Your task to perform on an android device: create a new album in the google photos Image 0: 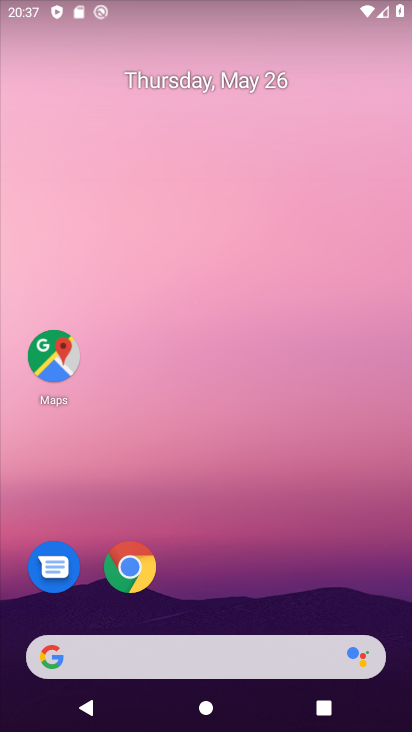
Step 0: drag from (232, 572) to (261, 39)
Your task to perform on an android device: create a new album in the google photos Image 1: 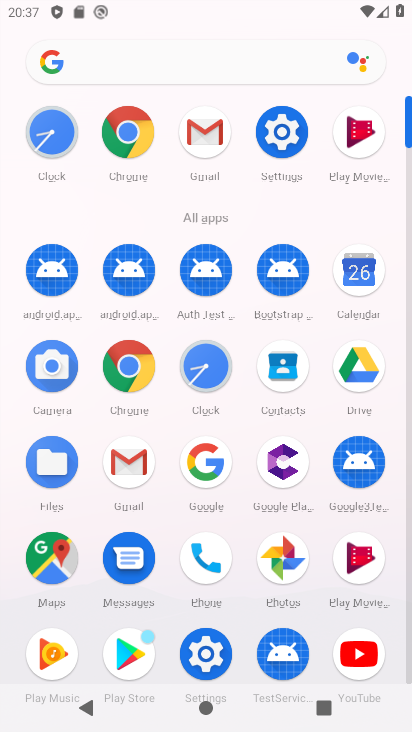
Step 1: click (284, 565)
Your task to perform on an android device: create a new album in the google photos Image 2: 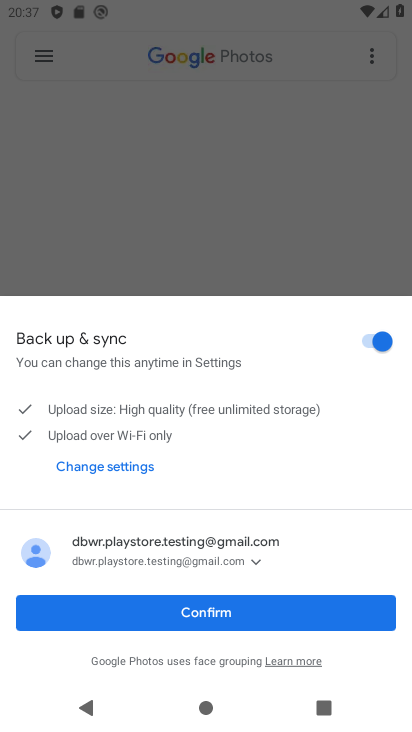
Step 2: click (222, 629)
Your task to perform on an android device: create a new album in the google photos Image 3: 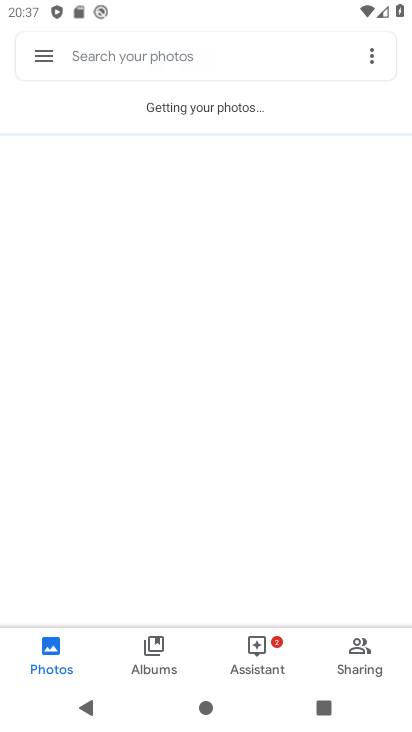
Step 3: click (375, 53)
Your task to perform on an android device: create a new album in the google photos Image 4: 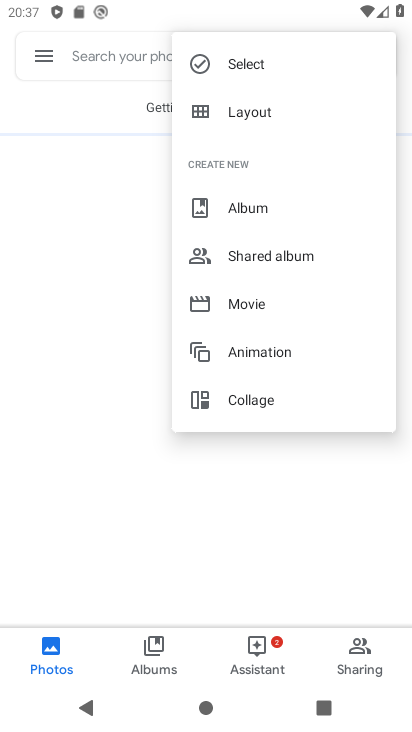
Step 4: click (243, 217)
Your task to perform on an android device: create a new album in the google photos Image 5: 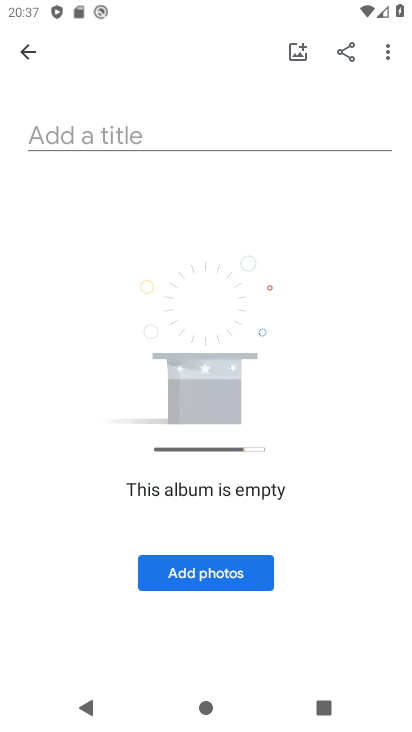
Step 5: click (199, 127)
Your task to perform on an android device: create a new album in the google photos Image 6: 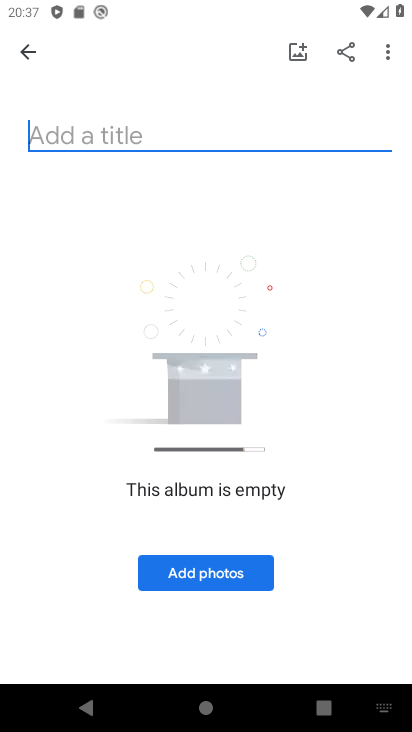
Step 6: type "fgfdh"
Your task to perform on an android device: create a new album in the google photos Image 7: 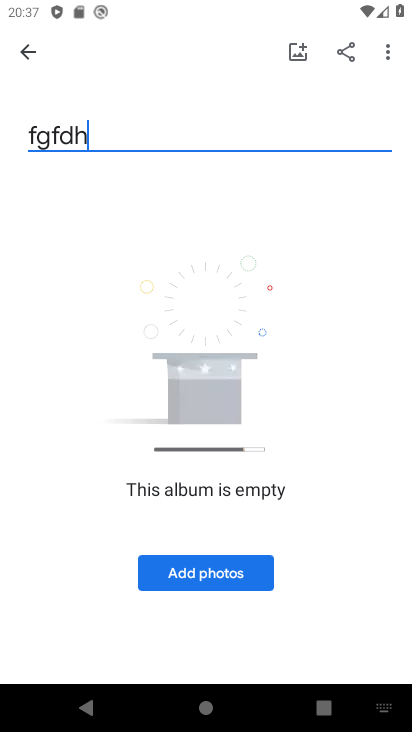
Step 7: click (191, 568)
Your task to perform on an android device: create a new album in the google photos Image 8: 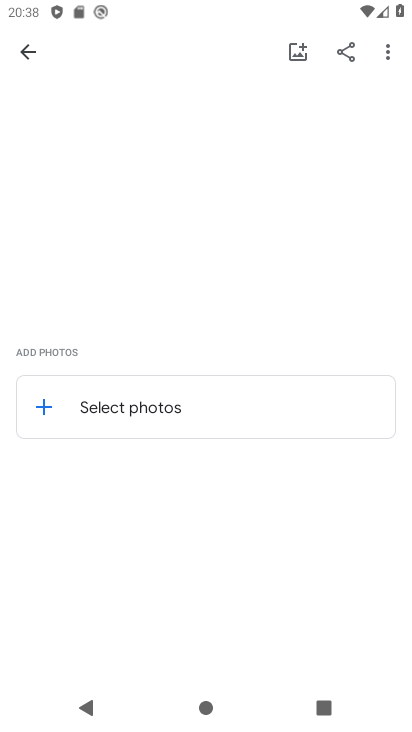
Step 8: click (48, 408)
Your task to perform on an android device: create a new album in the google photos Image 9: 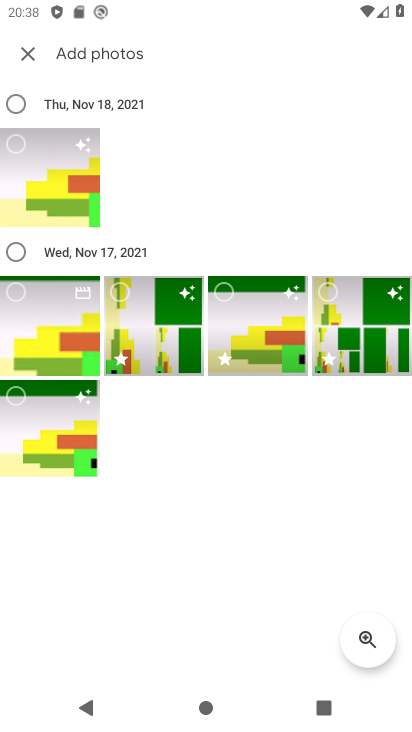
Step 9: click (19, 291)
Your task to perform on an android device: create a new album in the google photos Image 10: 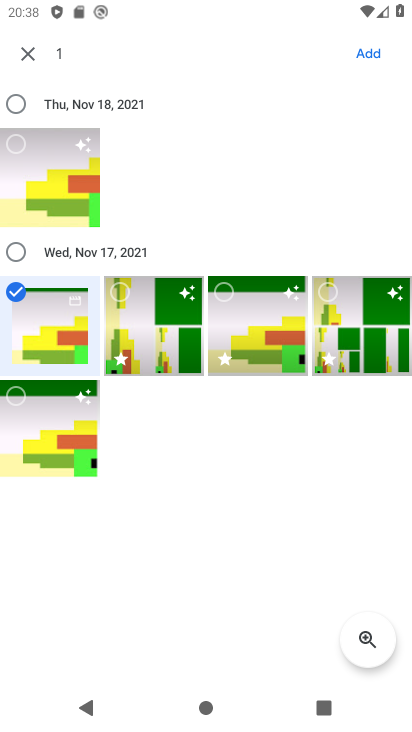
Step 10: click (13, 400)
Your task to perform on an android device: create a new album in the google photos Image 11: 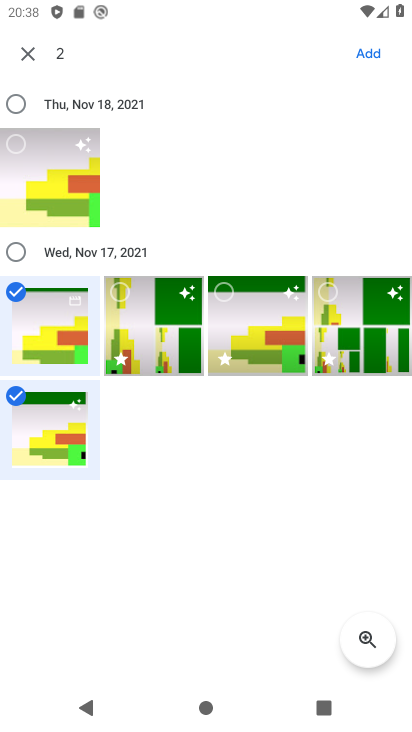
Step 11: click (370, 50)
Your task to perform on an android device: create a new album in the google photos Image 12: 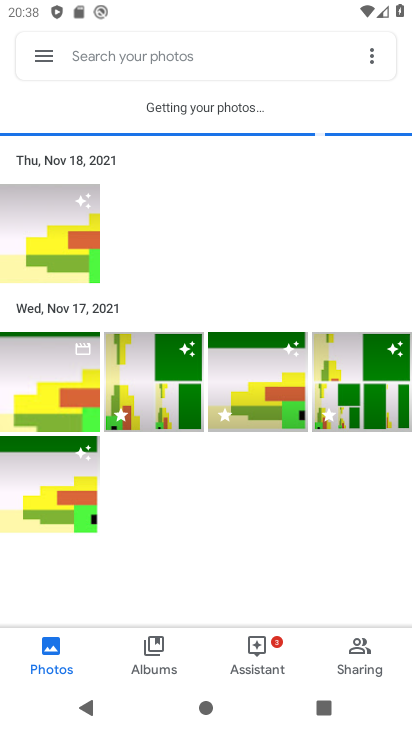
Step 12: task complete